Your task to perform on an android device: open a bookmark in the chrome app Image 0: 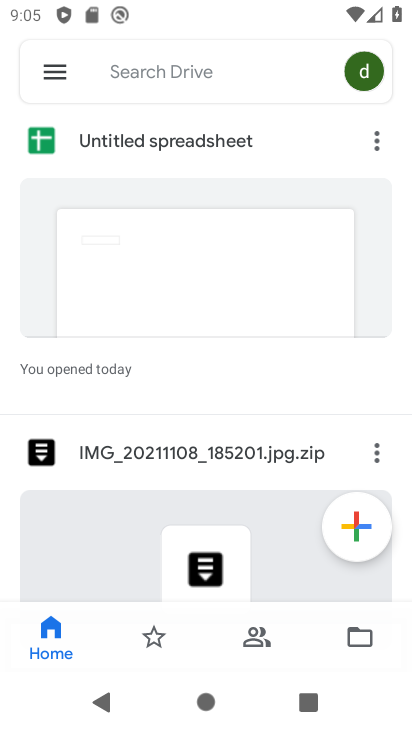
Step 0: press home button
Your task to perform on an android device: open a bookmark in the chrome app Image 1: 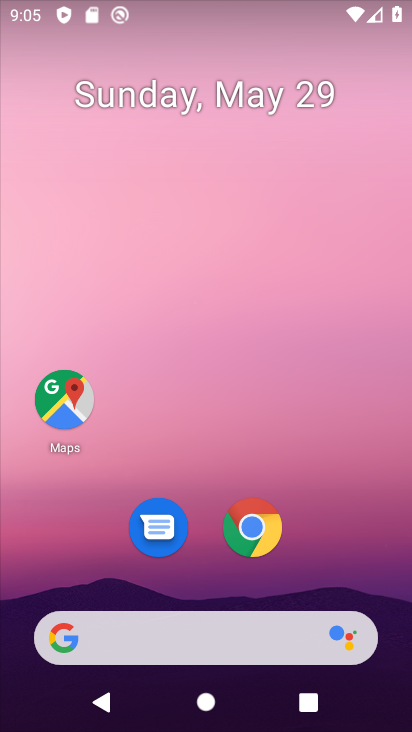
Step 1: click (254, 537)
Your task to perform on an android device: open a bookmark in the chrome app Image 2: 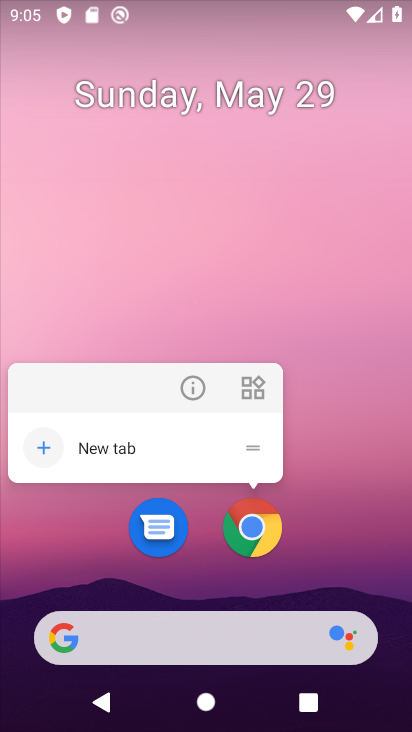
Step 2: click (259, 525)
Your task to perform on an android device: open a bookmark in the chrome app Image 3: 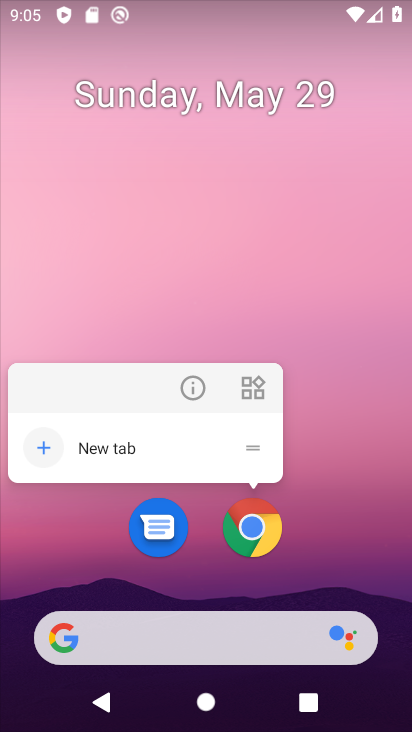
Step 3: click (254, 535)
Your task to perform on an android device: open a bookmark in the chrome app Image 4: 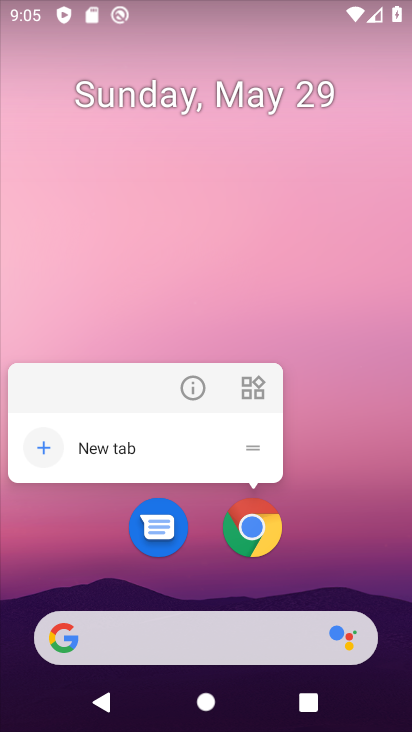
Step 4: click (252, 544)
Your task to perform on an android device: open a bookmark in the chrome app Image 5: 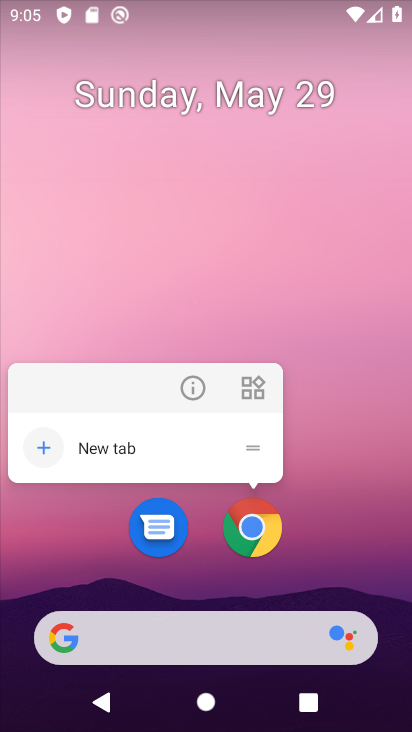
Step 5: click (252, 542)
Your task to perform on an android device: open a bookmark in the chrome app Image 6: 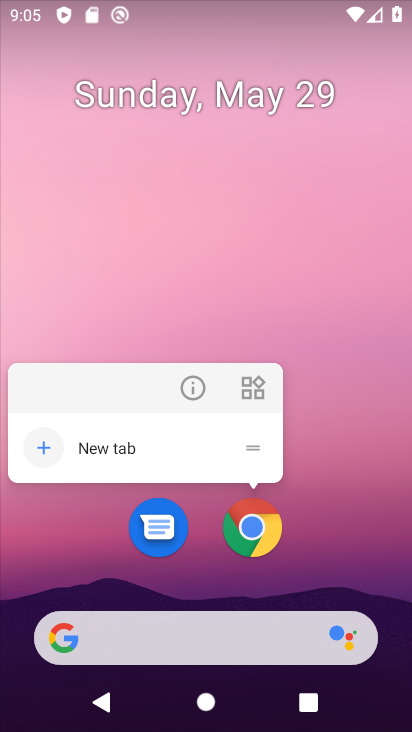
Step 6: click (248, 533)
Your task to perform on an android device: open a bookmark in the chrome app Image 7: 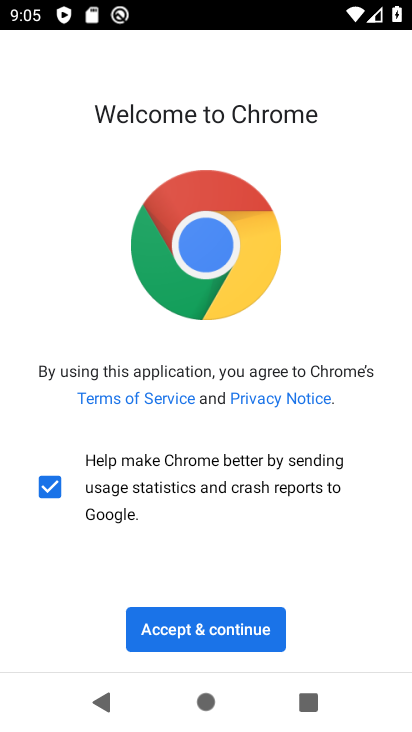
Step 7: click (232, 627)
Your task to perform on an android device: open a bookmark in the chrome app Image 8: 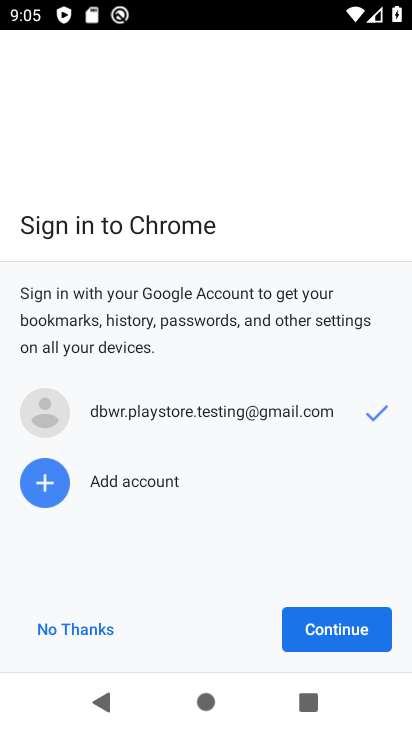
Step 8: click (334, 639)
Your task to perform on an android device: open a bookmark in the chrome app Image 9: 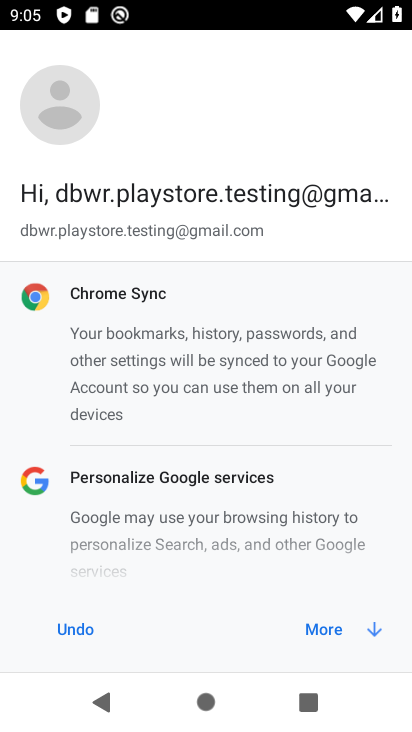
Step 9: click (338, 630)
Your task to perform on an android device: open a bookmark in the chrome app Image 10: 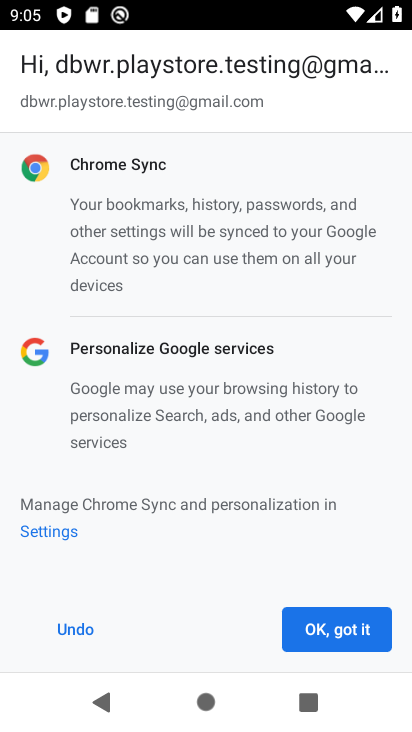
Step 10: click (338, 630)
Your task to perform on an android device: open a bookmark in the chrome app Image 11: 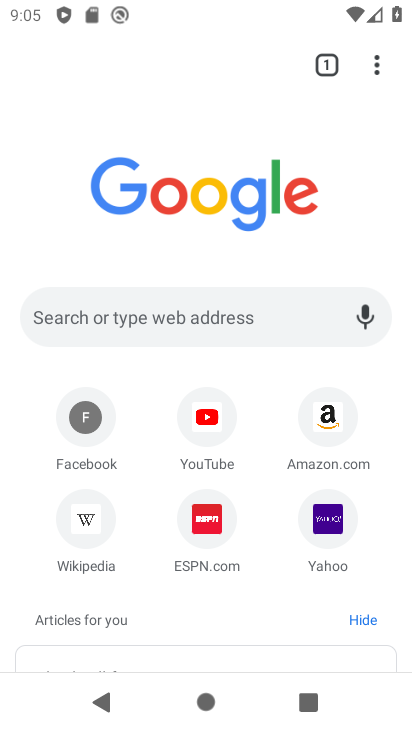
Step 11: task complete